Your task to perform on an android device: What's the weather today? Image 0: 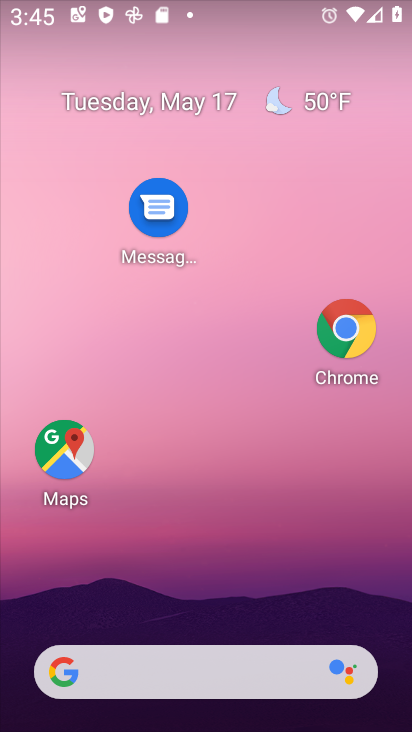
Step 0: click (203, 705)
Your task to perform on an android device: What's the weather today? Image 1: 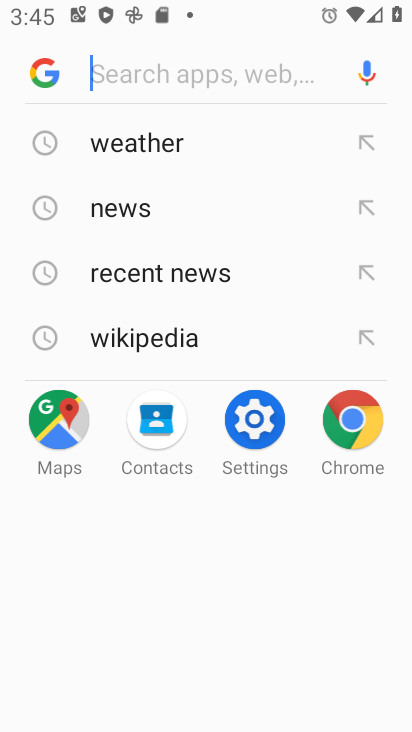
Step 1: click (203, 696)
Your task to perform on an android device: What's the weather today? Image 2: 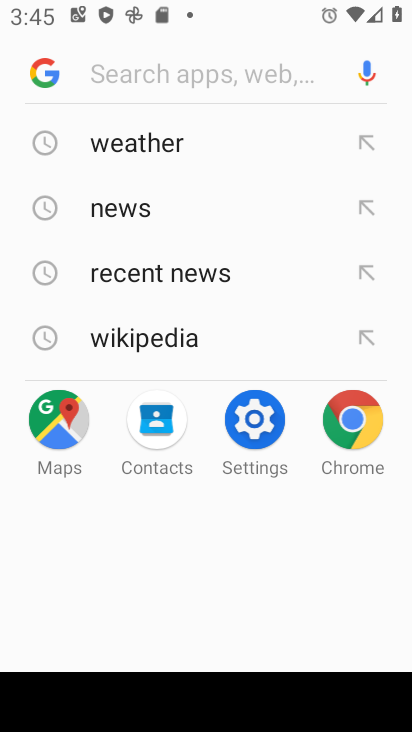
Step 2: click (164, 134)
Your task to perform on an android device: What's the weather today? Image 3: 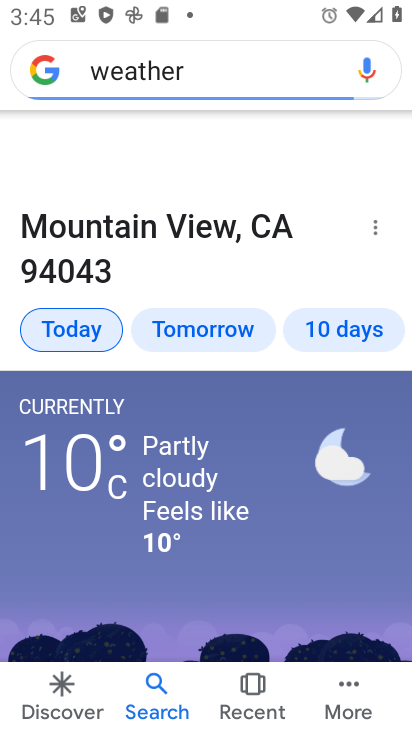
Step 3: task complete